Your task to perform on an android device: turn on data saver in the chrome app Image 0: 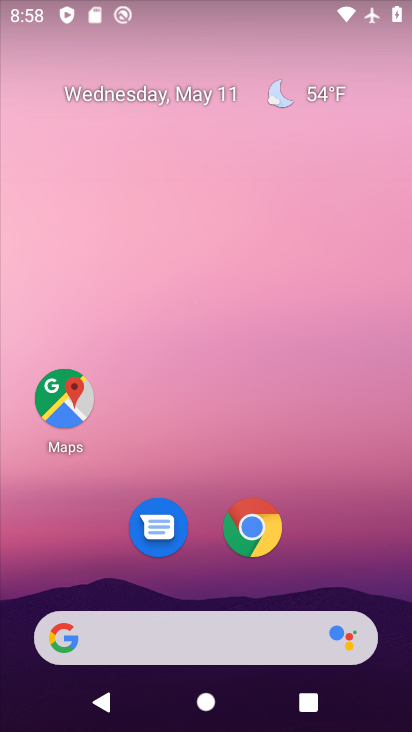
Step 0: click (249, 529)
Your task to perform on an android device: turn on data saver in the chrome app Image 1: 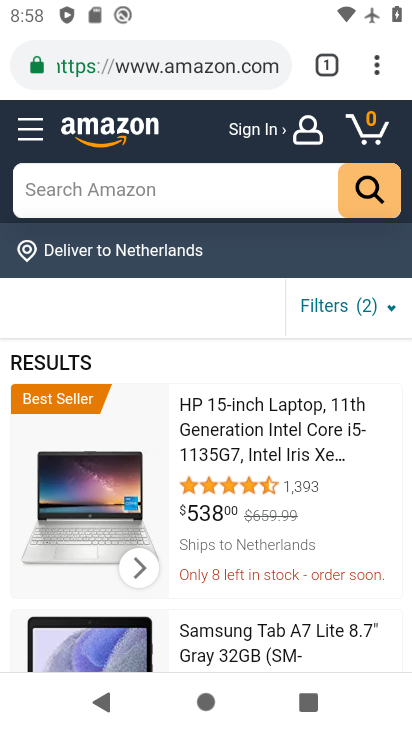
Step 1: drag from (382, 65) to (206, 581)
Your task to perform on an android device: turn on data saver in the chrome app Image 2: 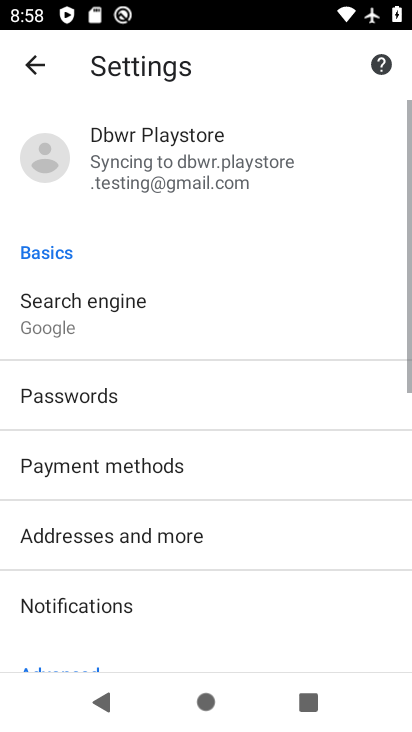
Step 2: drag from (206, 564) to (217, 172)
Your task to perform on an android device: turn on data saver in the chrome app Image 3: 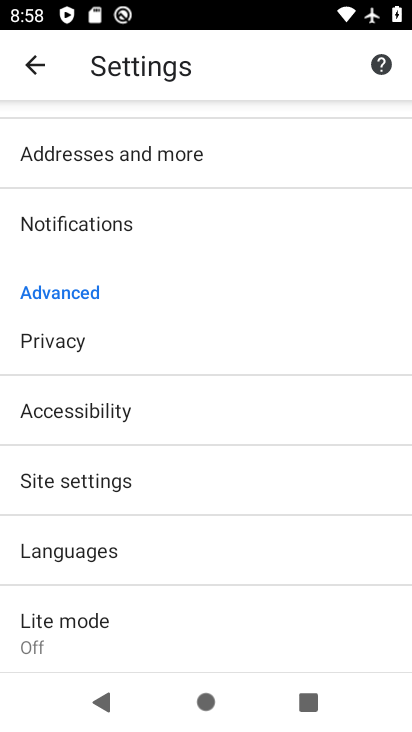
Step 3: click (92, 623)
Your task to perform on an android device: turn on data saver in the chrome app Image 4: 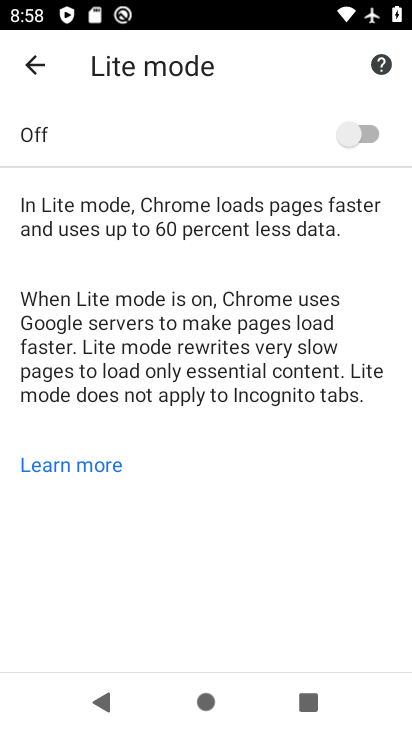
Step 4: click (355, 137)
Your task to perform on an android device: turn on data saver in the chrome app Image 5: 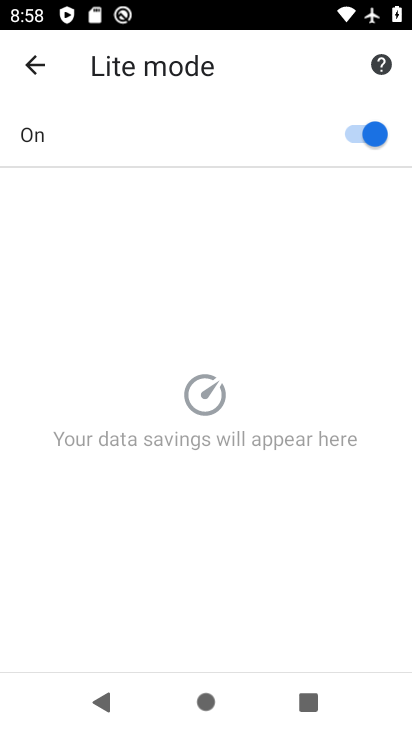
Step 5: task complete